Your task to perform on an android device: What is the news today? Image 0: 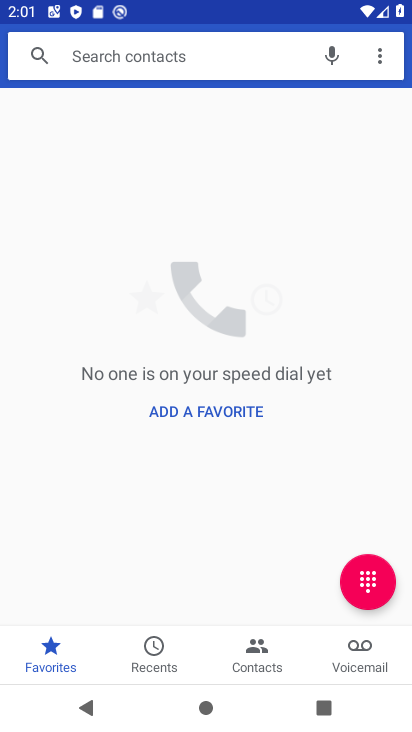
Step 0: press home button
Your task to perform on an android device: What is the news today? Image 1: 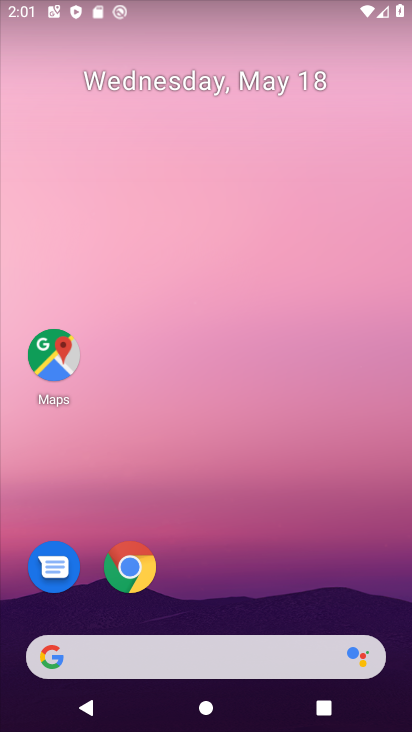
Step 1: click (127, 568)
Your task to perform on an android device: What is the news today? Image 2: 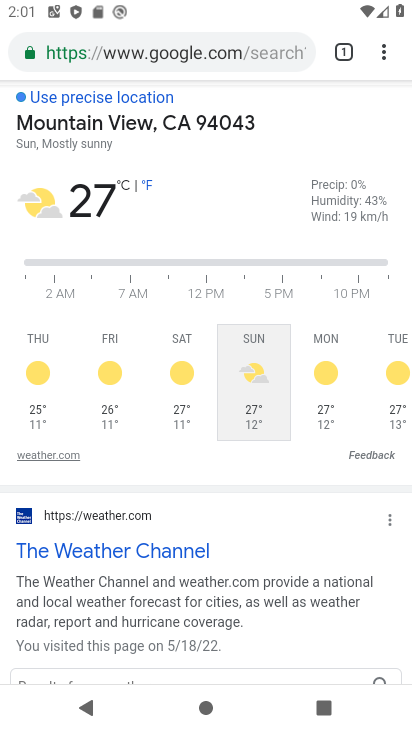
Step 2: drag from (257, 152) to (245, 659)
Your task to perform on an android device: What is the news today? Image 3: 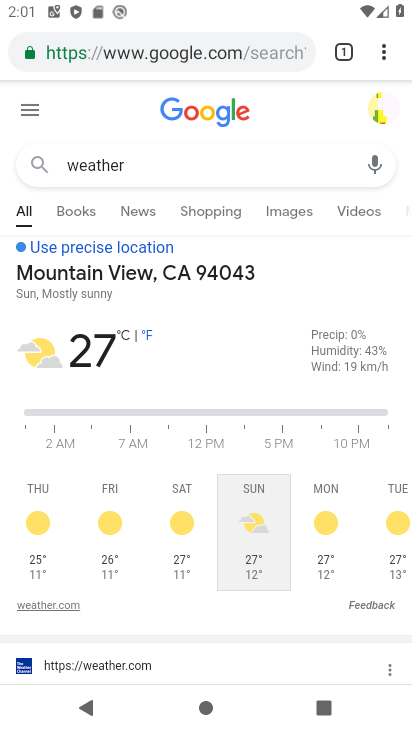
Step 3: click (203, 159)
Your task to perform on an android device: What is the news today? Image 4: 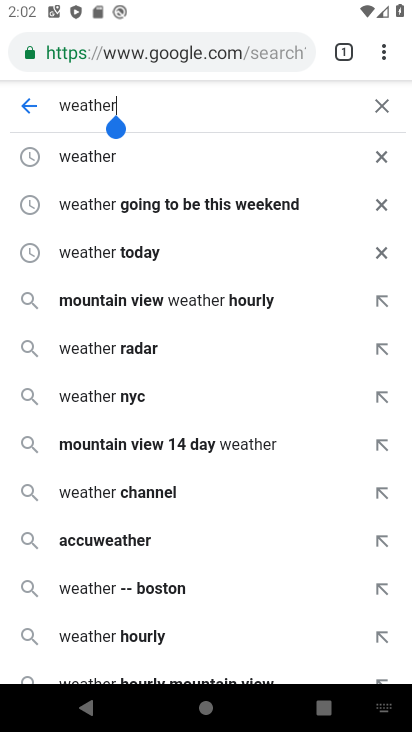
Step 4: click (132, 60)
Your task to perform on an android device: What is the news today? Image 5: 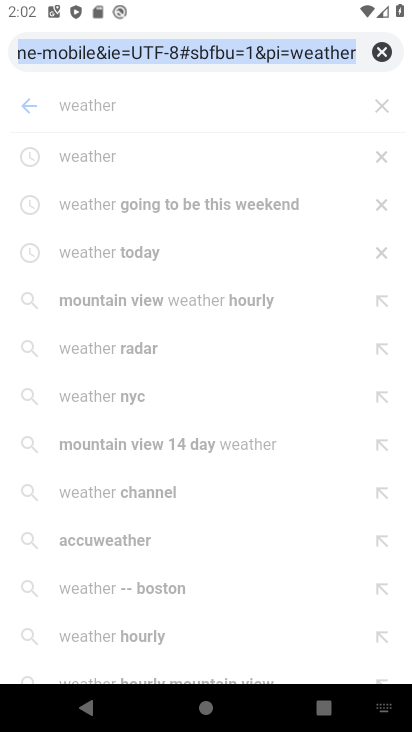
Step 5: type "news"
Your task to perform on an android device: What is the news today? Image 6: 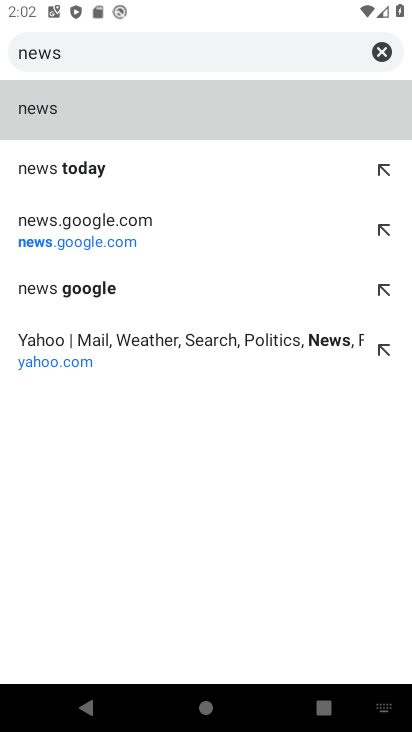
Step 6: click (26, 110)
Your task to perform on an android device: What is the news today? Image 7: 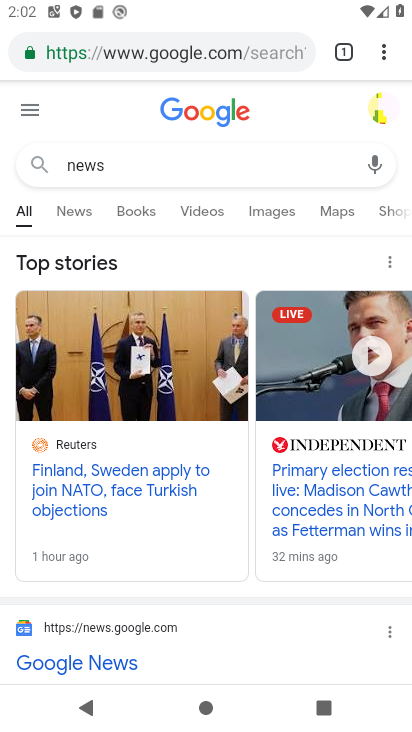
Step 7: click (73, 215)
Your task to perform on an android device: What is the news today? Image 8: 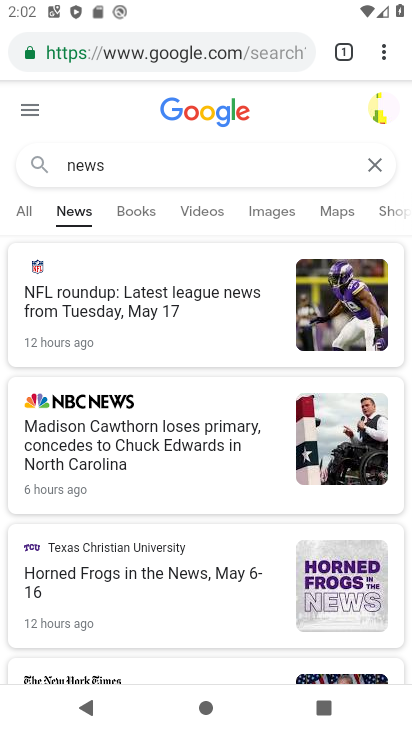
Step 8: task complete